Your task to perform on an android device: Open the stopwatch Image 0: 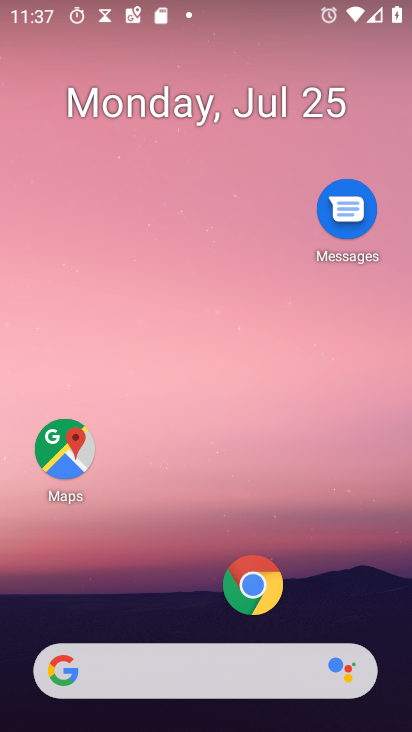
Step 0: press home button
Your task to perform on an android device: Open the stopwatch Image 1: 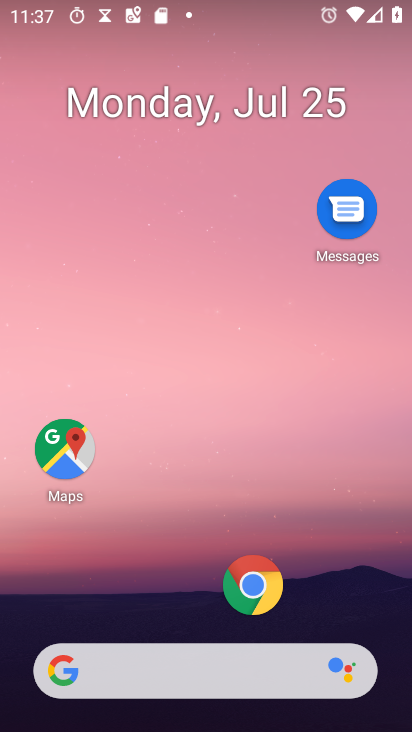
Step 1: drag from (197, 693) to (331, 34)
Your task to perform on an android device: Open the stopwatch Image 2: 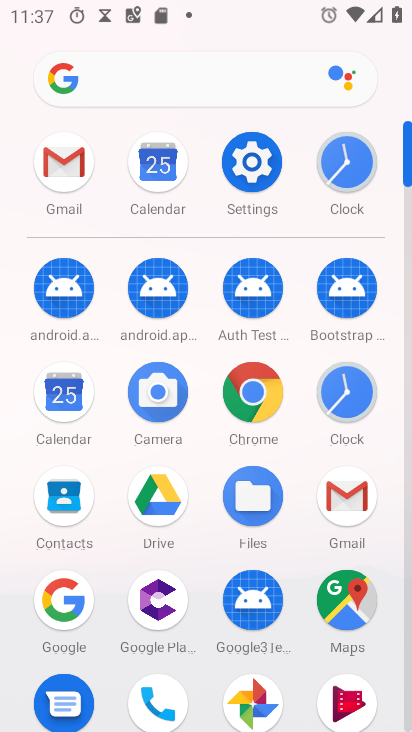
Step 2: click (340, 400)
Your task to perform on an android device: Open the stopwatch Image 3: 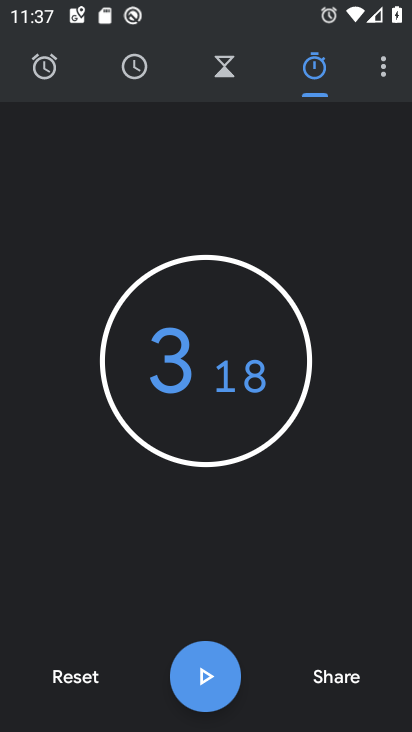
Step 3: task complete